Your task to perform on an android device: change the clock display to show seconds Image 0: 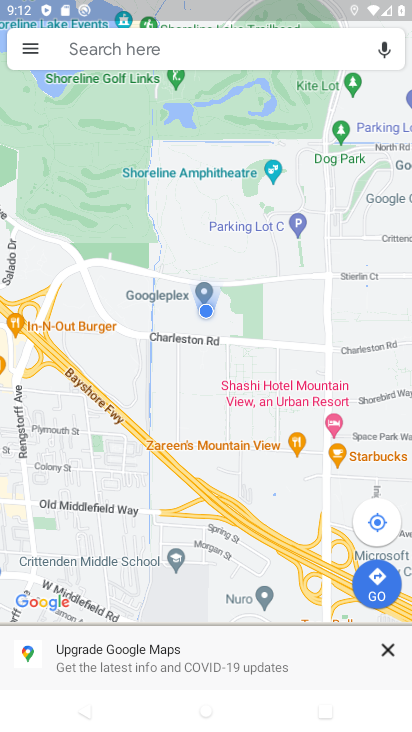
Step 0: press home button
Your task to perform on an android device: change the clock display to show seconds Image 1: 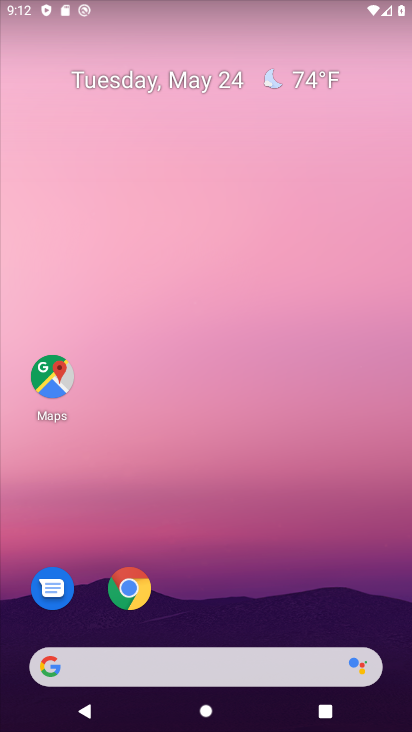
Step 1: drag from (225, 619) to (289, 19)
Your task to perform on an android device: change the clock display to show seconds Image 2: 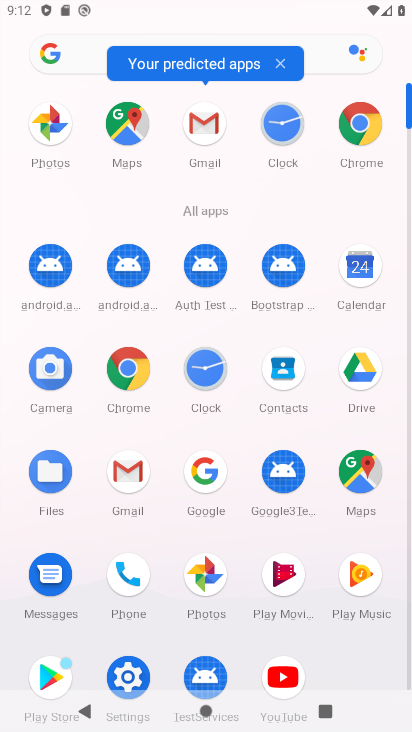
Step 2: click (284, 118)
Your task to perform on an android device: change the clock display to show seconds Image 3: 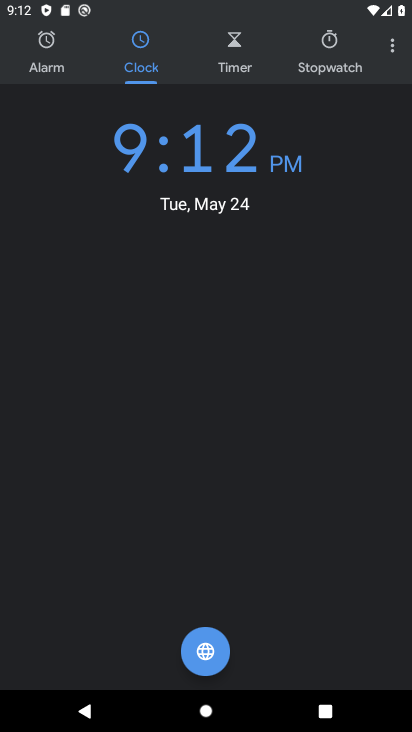
Step 3: click (403, 45)
Your task to perform on an android device: change the clock display to show seconds Image 4: 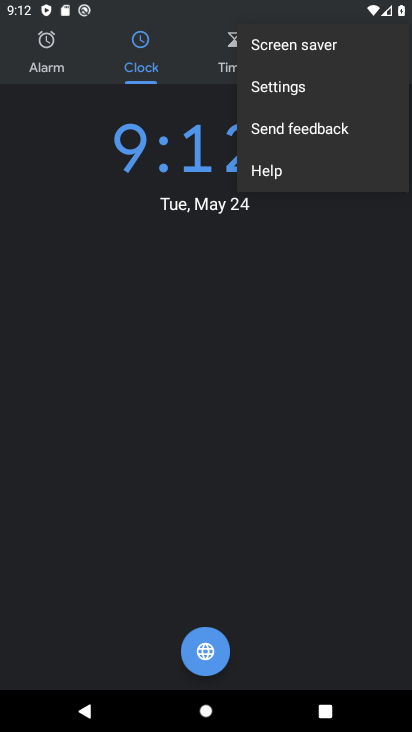
Step 4: click (317, 85)
Your task to perform on an android device: change the clock display to show seconds Image 5: 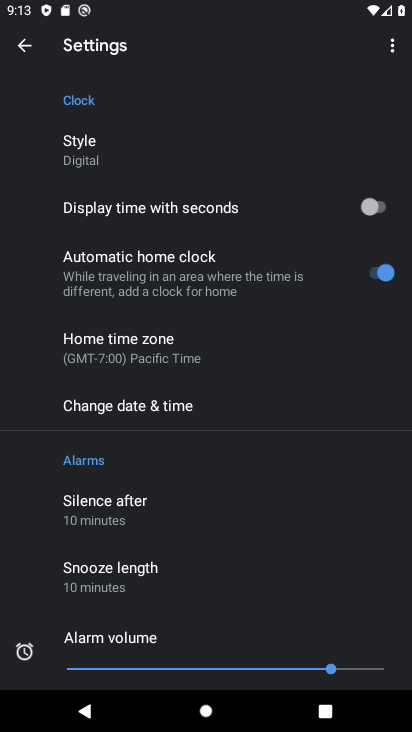
Step 5: drag from (182, 547) to (205, 213)
Your task to perform on an android device: change the clock display to show seconds Image 6: 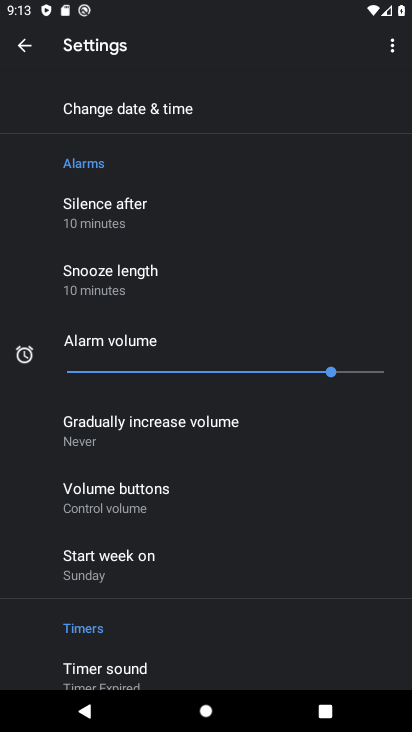
Step 6: drag from (205, 213) to (163, 618)
Your task to perform on an android device: change the clock display to show seconds Image 7: 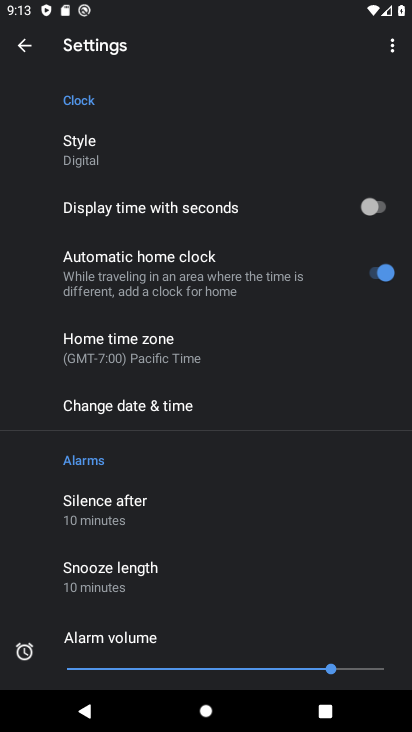
Step 7: click (375, 205)
Your task to perform on an android device: change the clock display to show seconds Image 8: 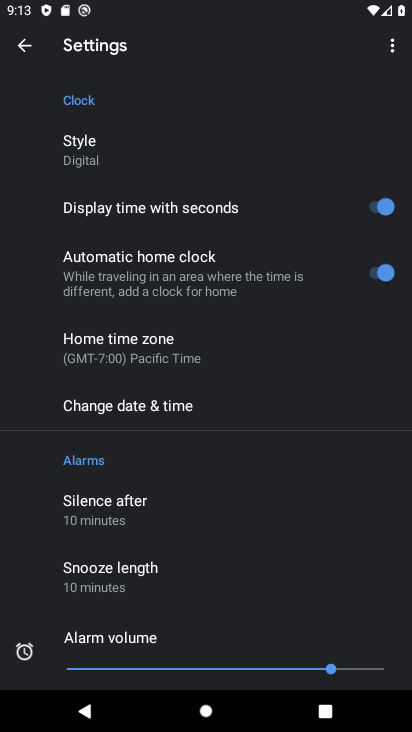
Step 8: task complete